Your task to perform on an android device: toggle pop-ups in chrome Image 0: 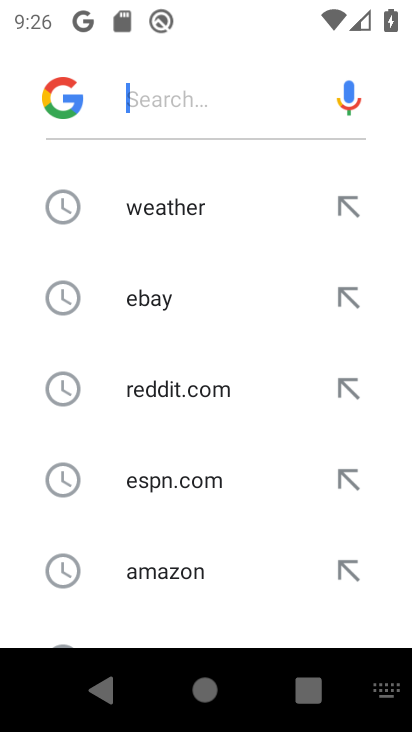
Step 0: press home button
Your task to perform on an android device: toggle pop-ups in chrome Image 1: 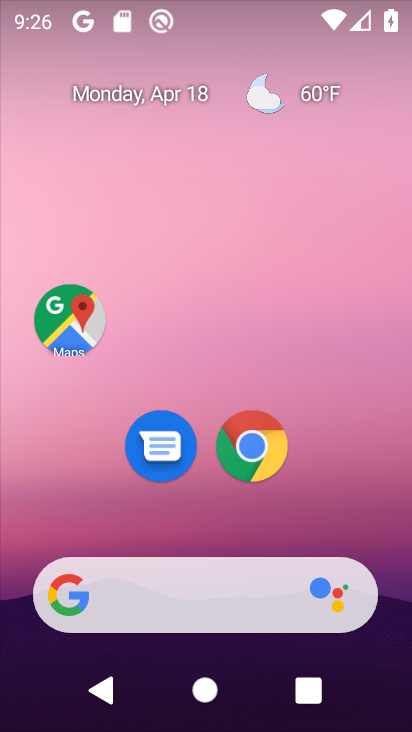
Step 1: drag from (369, 496) to (370, 75)
Your task to perform on an android device: toggle pop-ups in chrome Image 2: 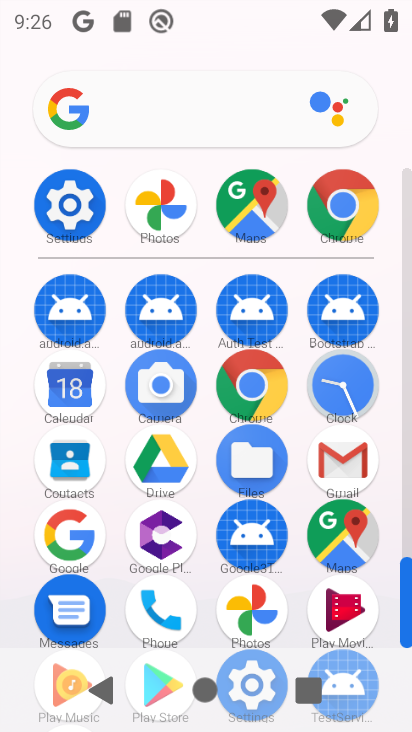
Step 2: click (263, 402)
Your task to perform on an android device: toggle pop-ups in chrome Image 3: 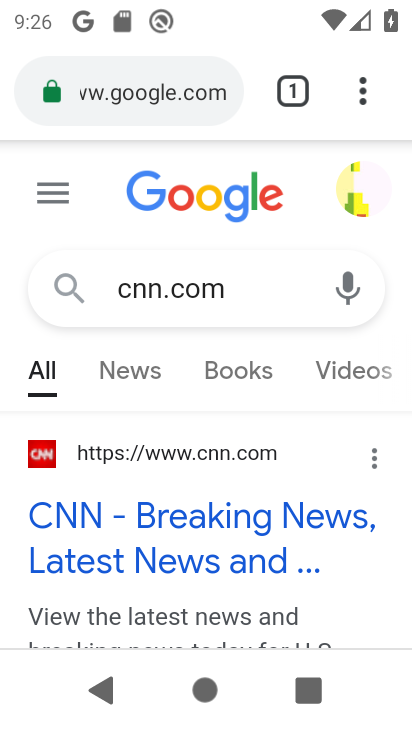
Step 3: click (365, 88)
Your task to perform on an android device: toggle pop-ups in chrome Image 4: 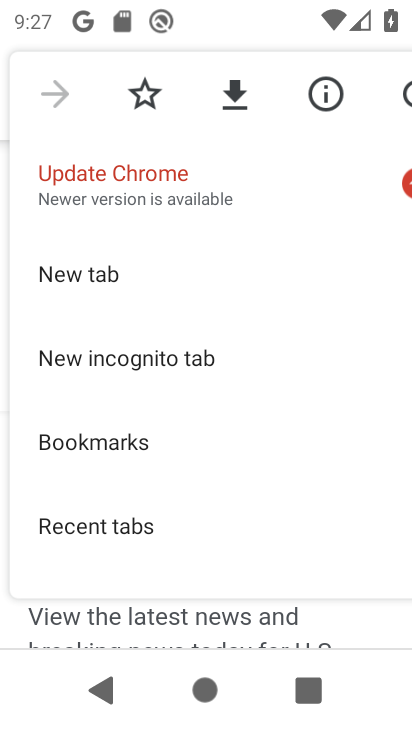
Step 4: drag from (317, 500) to (324, 297)
Your task to perform on an android device: toggle pop-ups in chrome Image 5: 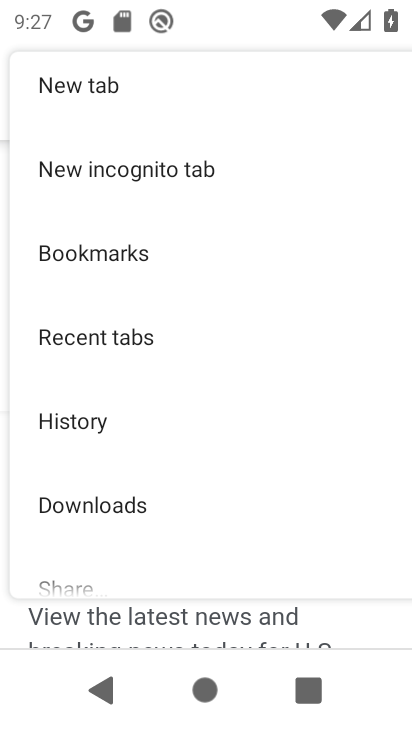
Step 5: drag from (328, 510) to (325, 293)
Your task to perform on an android device: toggle pop-ups in chrome Image 6: 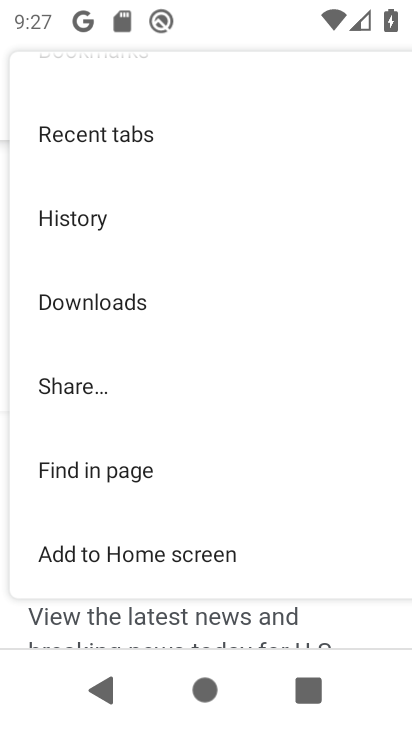
Step 6: drag from (332, 540) to (305, 228)
Your task to perform on an android device: toggle pop-ups in chrome Image 7: 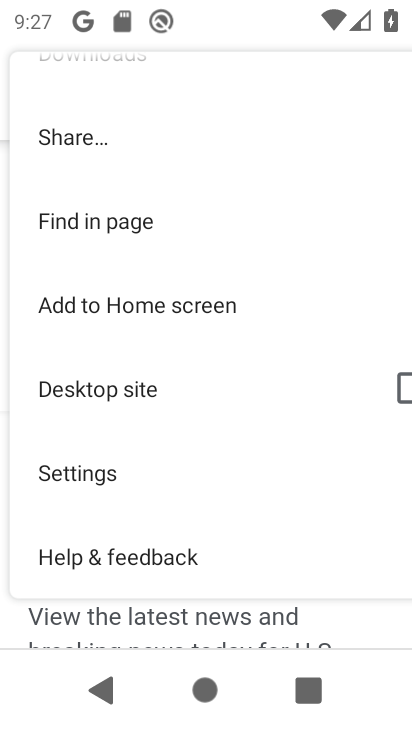
Step 7: click (90, 478)
Your task to perform on an android device: toggle pop-ups in chrome Image 8: 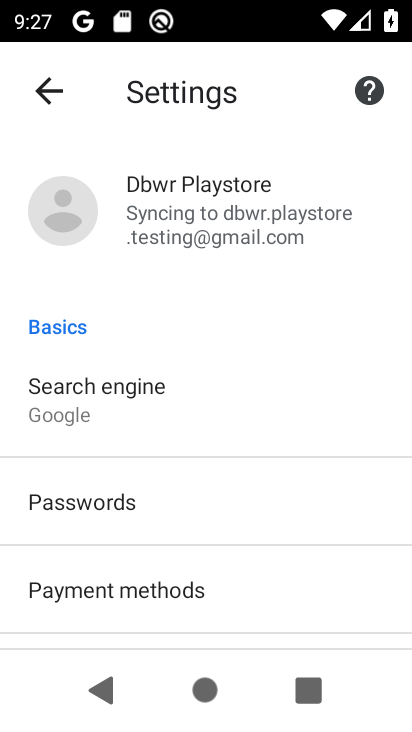
Step 8: drag from (317, 548) to (322, 366)
Your task to perform on an android device: toggle pop-ups in chrome Image 9: 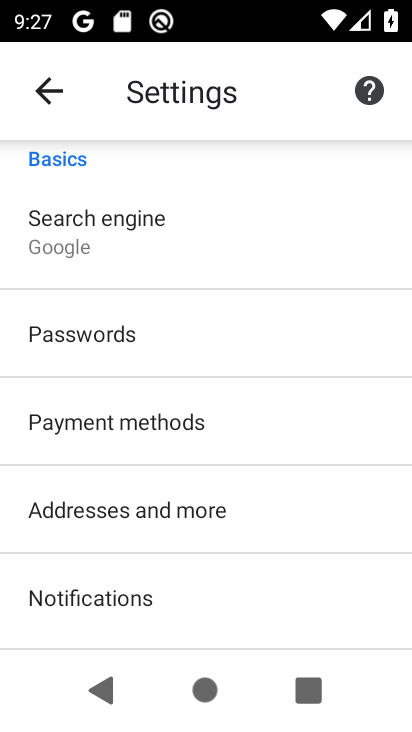
Step 9: drag from (303, 563) to (301, 322)
Your task to perform on an android device: toggle pop-ups in chrome Image 10: 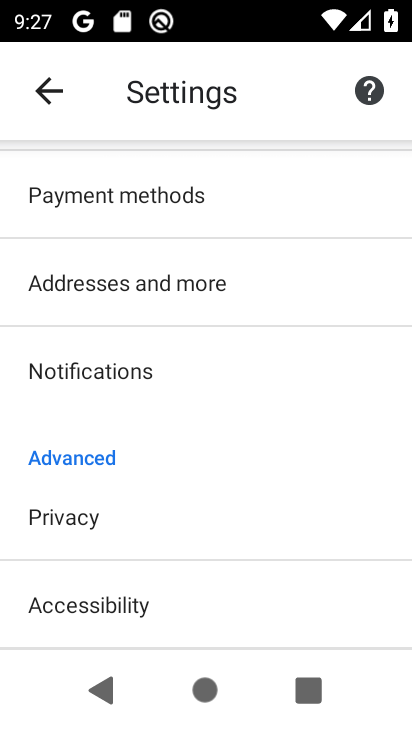
Step 10: drag from (301, 565) to (312, 325)
Your task to perform on an android device: toggle pop-ups in chrome Image 11: 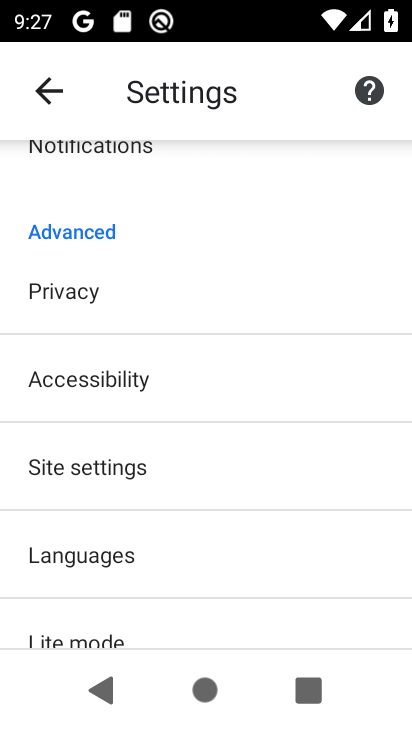
Step 11: click (263, 478)
Your task to perform on an android device: toggle pop-ups in chrome Image 12: 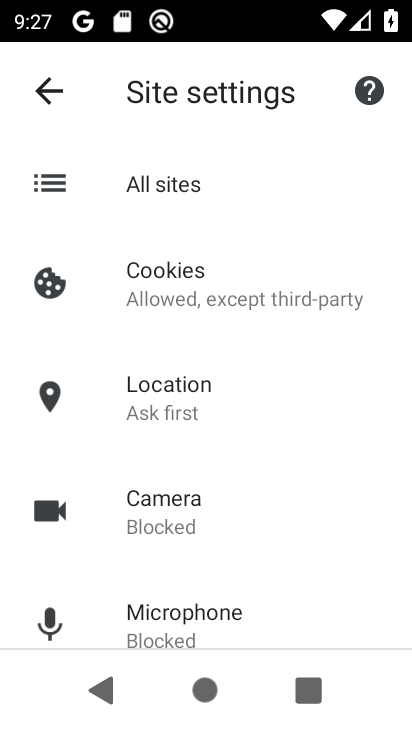
Step 12: drag from (342, 572) to (344, 419)
Your task to perform on an android device: toggle pop-ups in chrome Image 13: 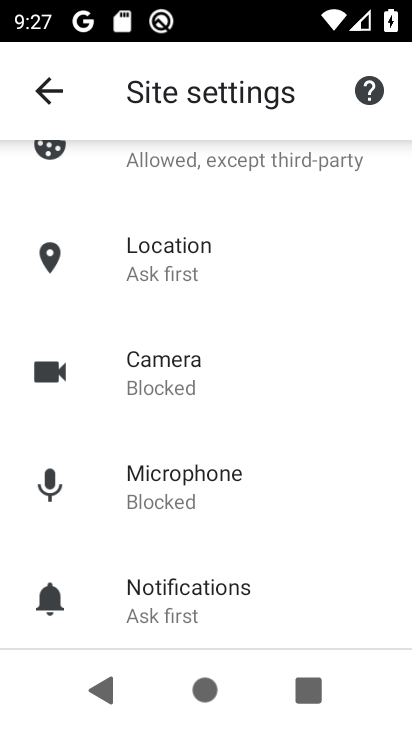
Step 13: drag from (349, 582) to (346, 427)
Your task to perform on an android device: toggle pop-ups in chrome Image 14: 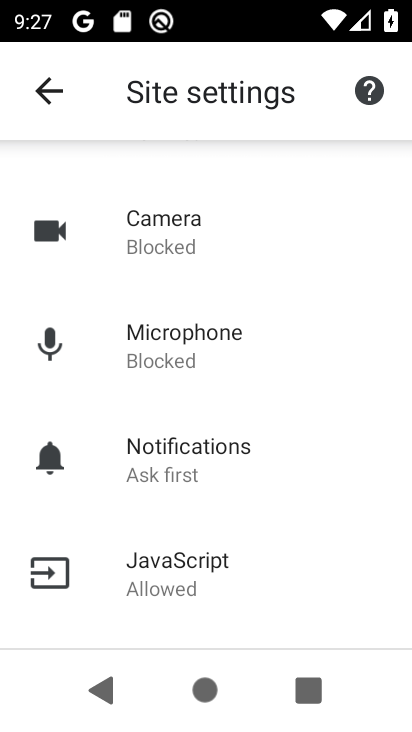
Step 14: drag from (337, 571) to (336, 447)
Your task to perform on an android device: toggle pop-ups in chrome Image 15: 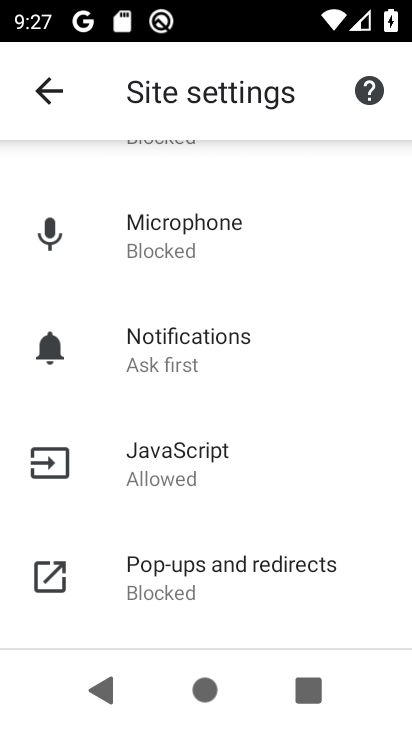
Step 15: drag from (356, 586) to (357, 445)
Your task to perform on an android device: toggle pop-ups in chrome Image 16: 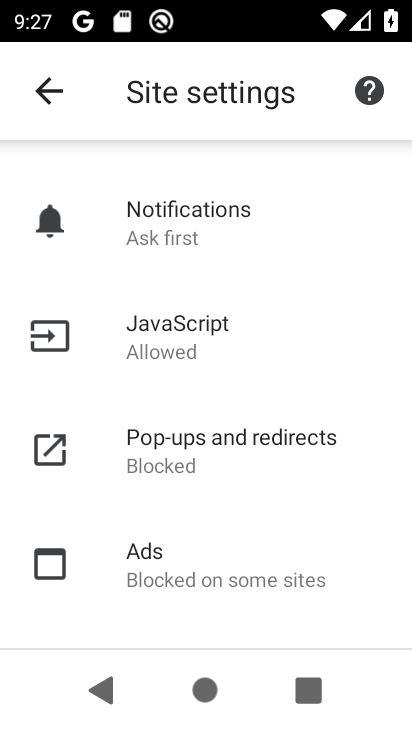
Step 16: drag from (365, 573) to (358, 467)
Your task to perform on an android device: toggle pop-ups in chrome Image 17: 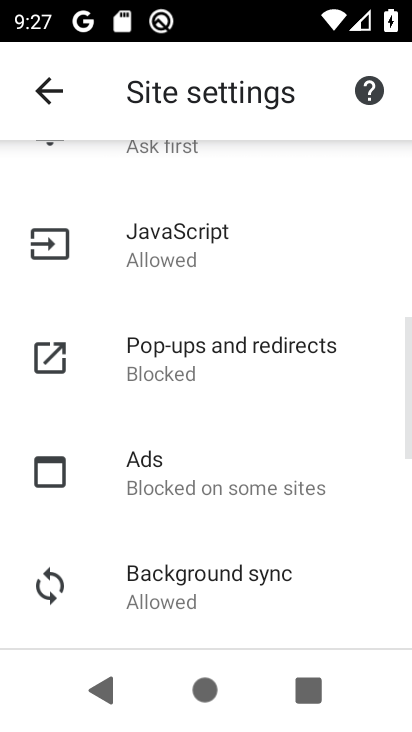
Step 17: click (243, 357)
Your task to perform on an android device: toggle pop-ups in chrome Image 18: 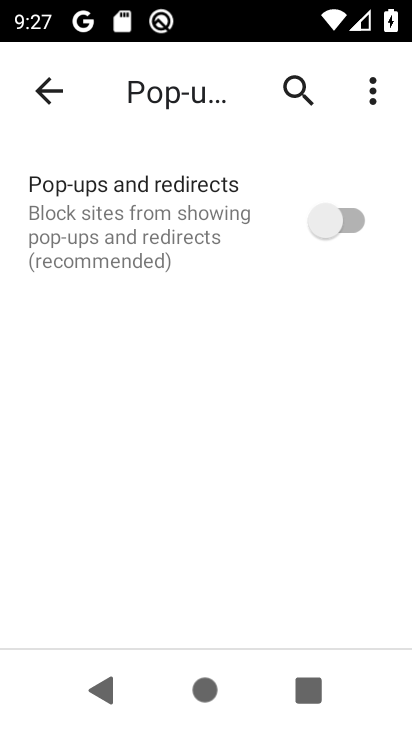
Step 18: click (321, 219)
Your task to perform on an android device: toggle pop-ups in chrome Image 19: 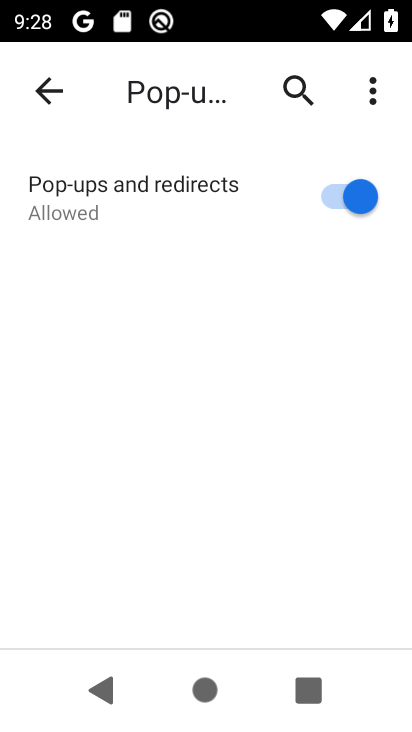
Step 19: task complete